Your task to perform on an android device: turn off notifications settings in the gmail app Image 0: 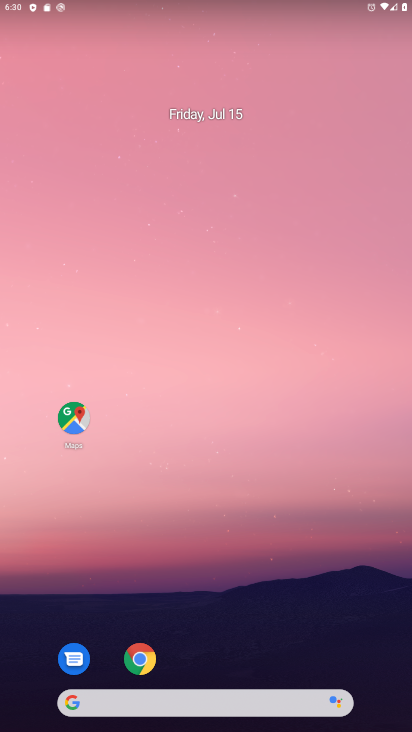
Step 0: drag from (379, 655) to (317, 131)
Your task to perform on an android device: turn off notifications settings in the gmail app Image 1: 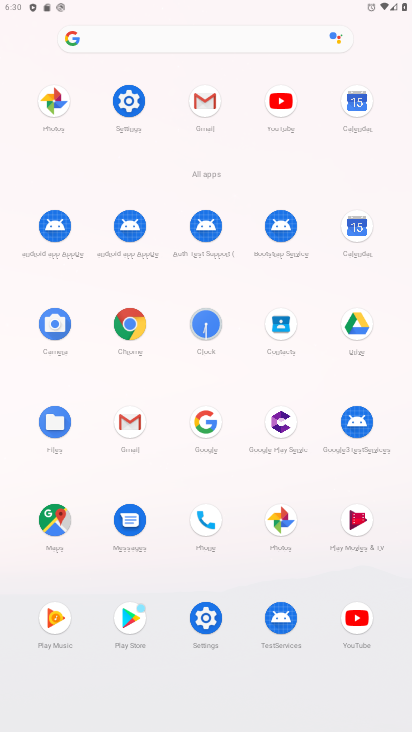
Step 1: click (127, 423)
Your task to perform on an android device: turn off notifications settings in the gmail app Image 2: 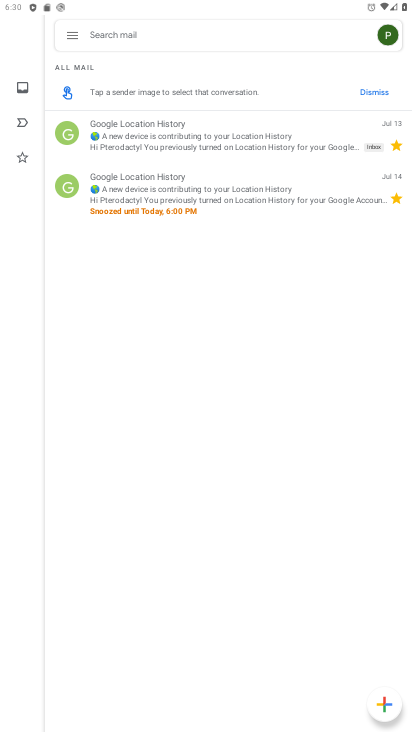
Step 2: click (78, 34)
Your task to perform on an android device: turn off notifications settings in the gmail app Image 3: 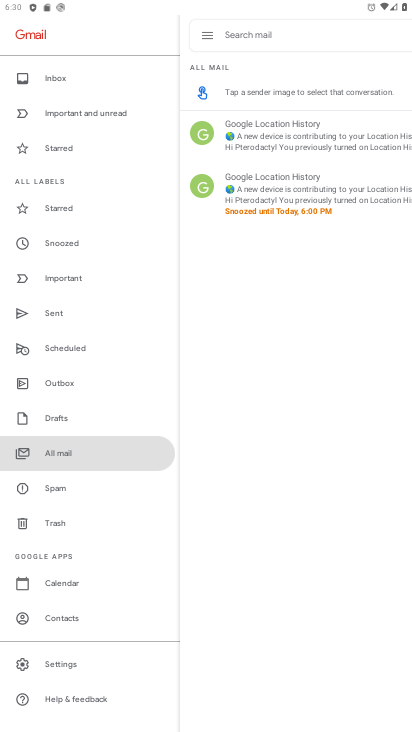
Step 3: drag from (132, 622) to (126, 435)
Your task to perform on an android device: turn off notifications settings in the gmail app Image 4: 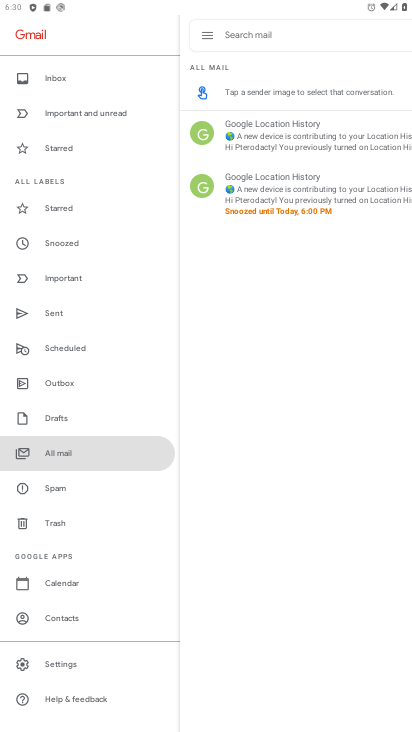
Step 4: click (56, 663)
Your task to perform on an android device: turn off notifications settings in the gmail app Image 5: 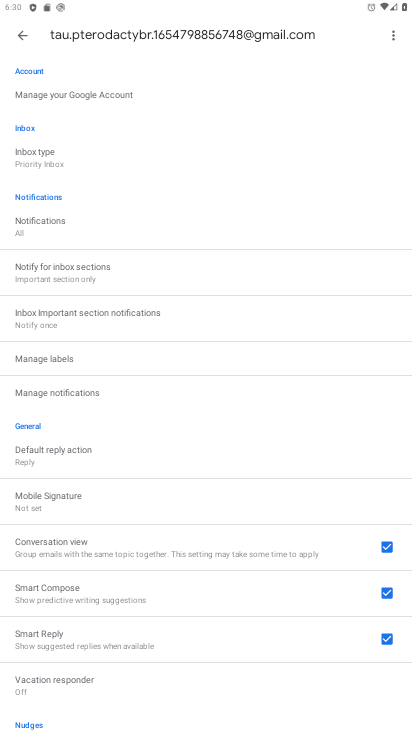
Step 5: click (57, 391)
Your task to perform on an android device: turn off notifications settings in the gmail app Image 6: 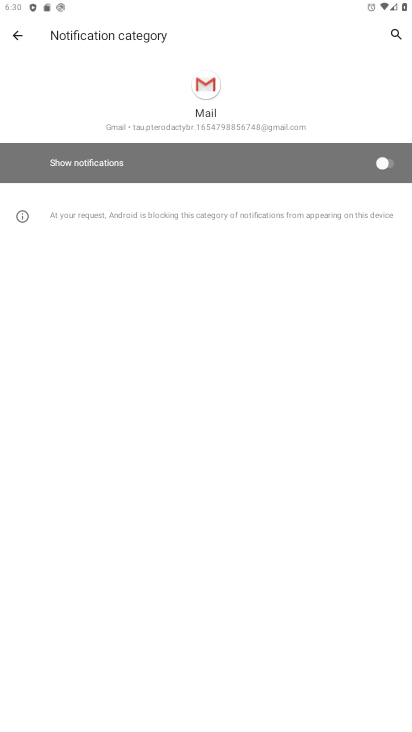
Step 6: task complete